Your task to perform on an android device: add a contact in the contacts app Image 0: 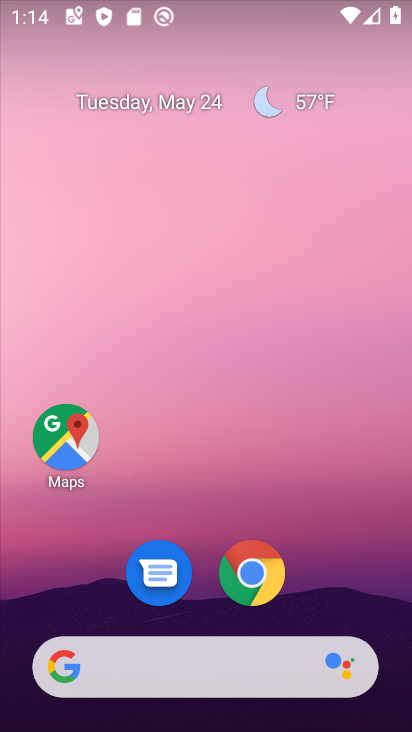
Step 0: drag from (345, 611) to (269, 10)
Your task to perform on an android device: add a contact in the contacts app Image 1: 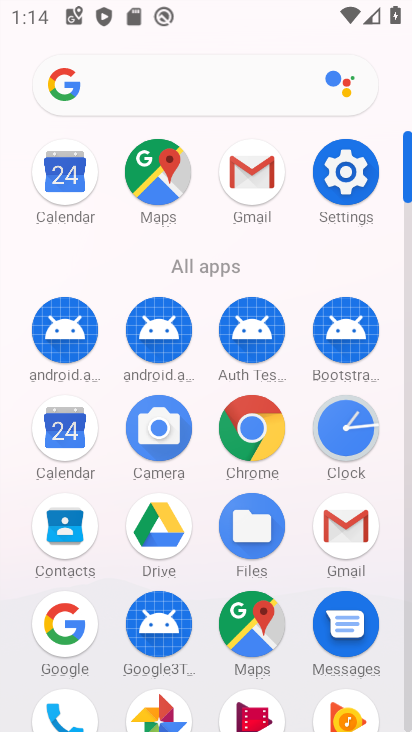
Step 1: click (63, 546)
Your task to perform on an android device: add a contact in the contacts app Image 2: 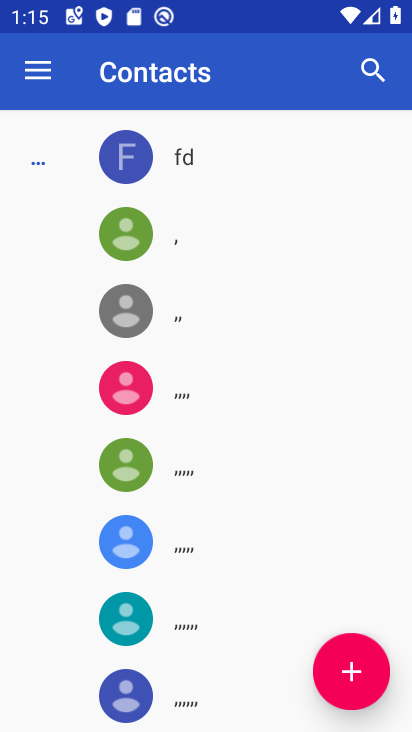
Step 2: click (356, 667)
Your task to perform on an android device: add a contact in the contacts app Image 3: 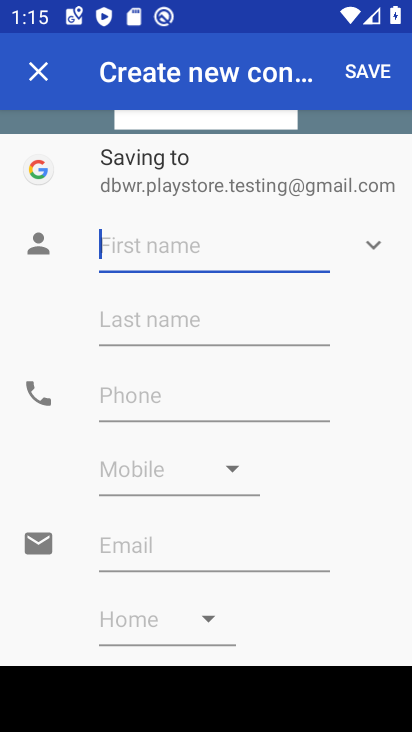
Step 3: click (190, 238)
Your task to perform on an android device: add a contact in the contacts app Image 4: 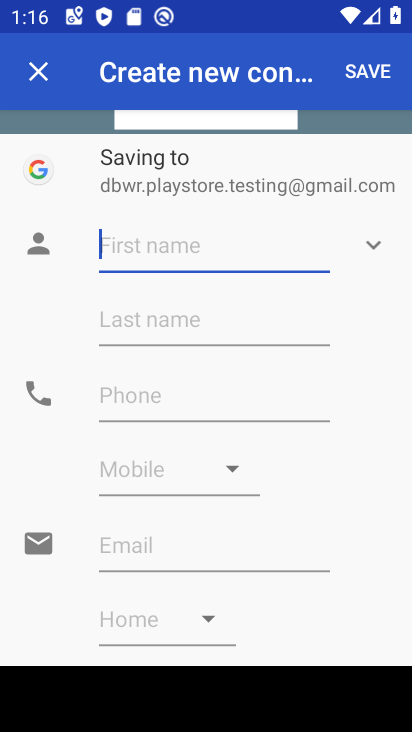
Step 4: type "kjhjkahsk"
Your task to perform on an android device: add a contact in the contacts app Image 5: 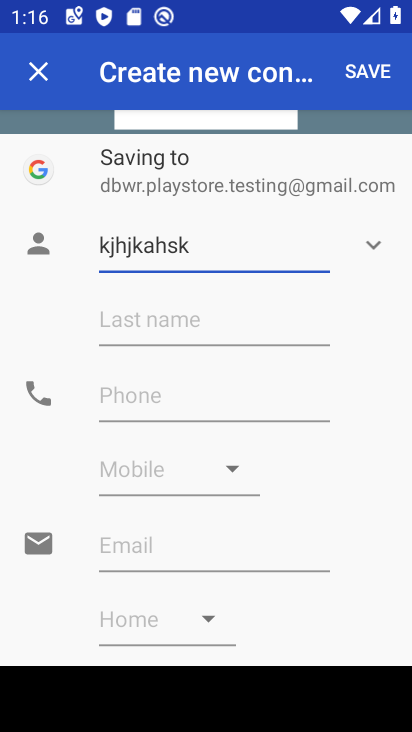
Step 5: click (151, 402)
Your task to perform on an android device: add a contact in the contacts app Image 6: 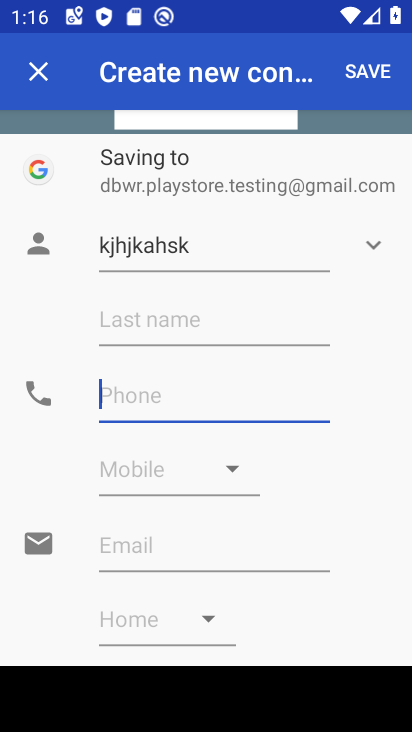
Step 6: click (151, 402)
Your task to perform on an android device: add a contact in the contacts app Image 7: 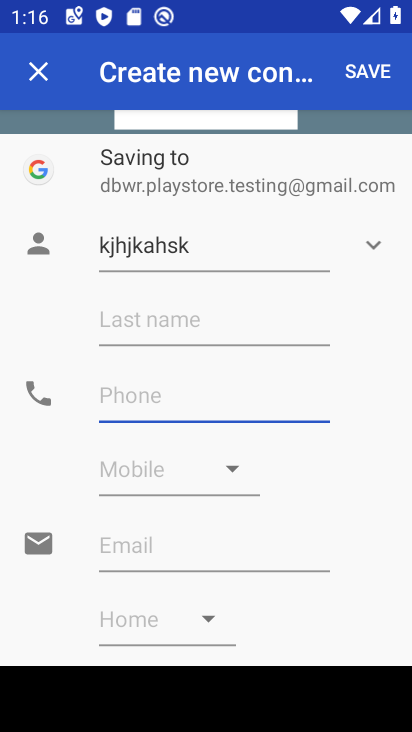
Step 7: type "68779890786"
Your task to perform on an android device: add a contact in the contacts app Image 8: 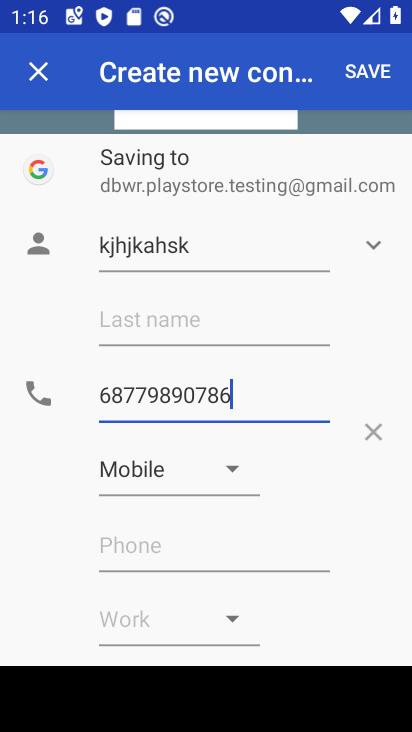
Step 8: type ""
Your task to perform on an android device: add a contact in the contacts app Image 9: 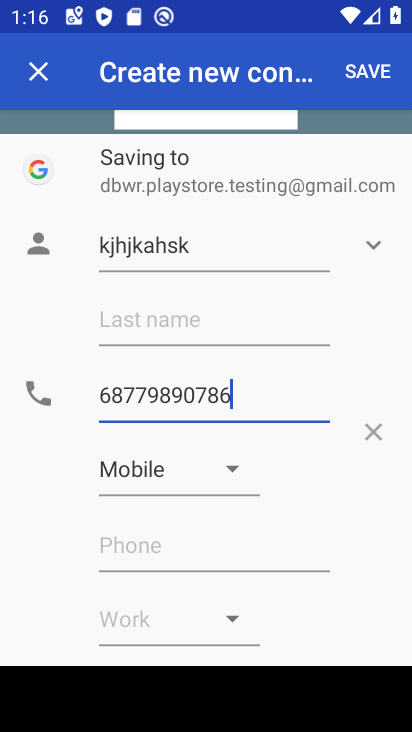
Step 9: task complete